Your task to perform on an android device: open a new tab in the chrome app Image 0: 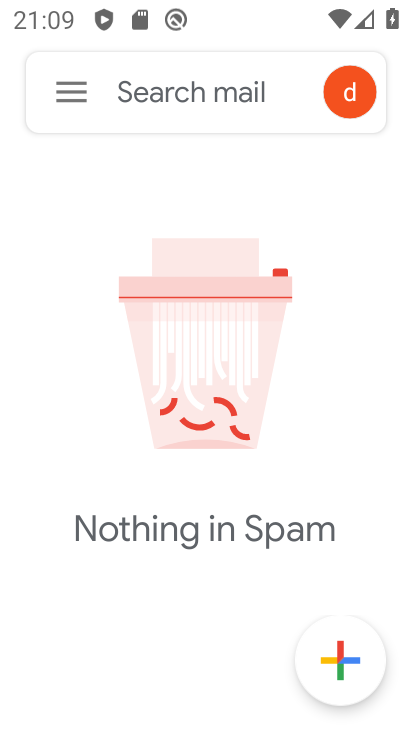
Step 0: press home button
Your task to perform on an android device: open a new tab in the chrome app Image 1: 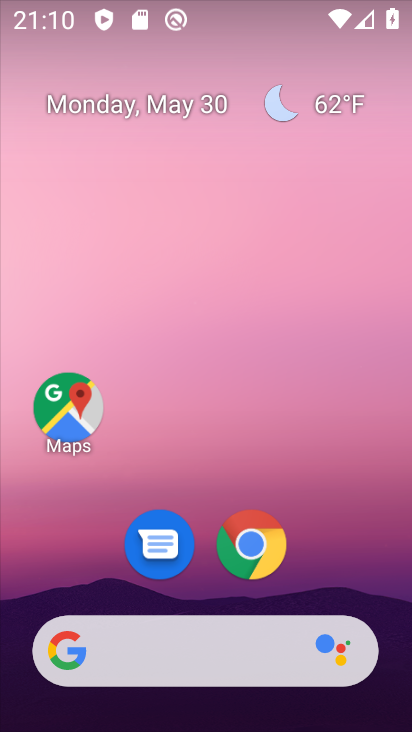
Step 1: click (253, 545)
Your task to perform on an android device: open a new tab in the chrome app Image 2: 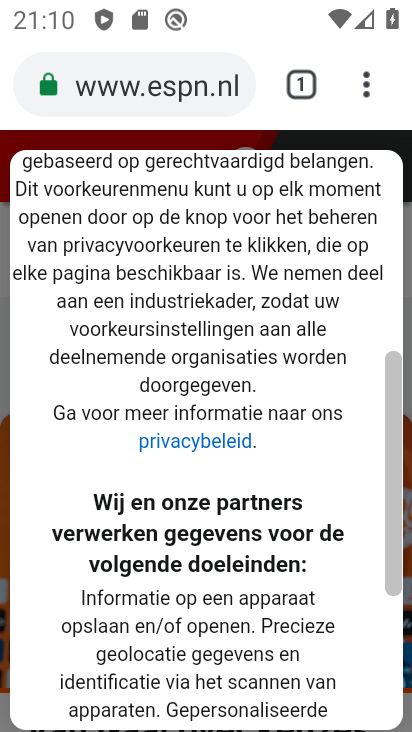
Step 2: click (367, 83)
Your task to perform on an android device: open a new tab in the chrome app Image 3: 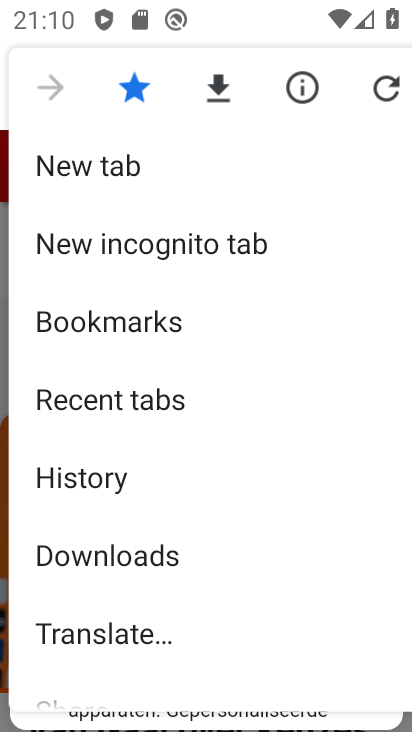
Step 3: click (121, 169)
Your task to perform on an android device: open a new tab in the chrome app Image 4: 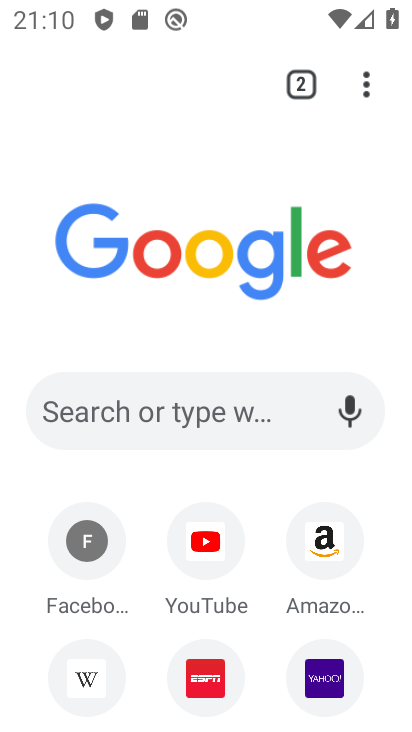
Step 4: task complete